Your task to perform on an android device: Show the shopping cart on bestbuy.com. Add usb-b to the cart on bestbuy.com, then select checkout. Image 0: 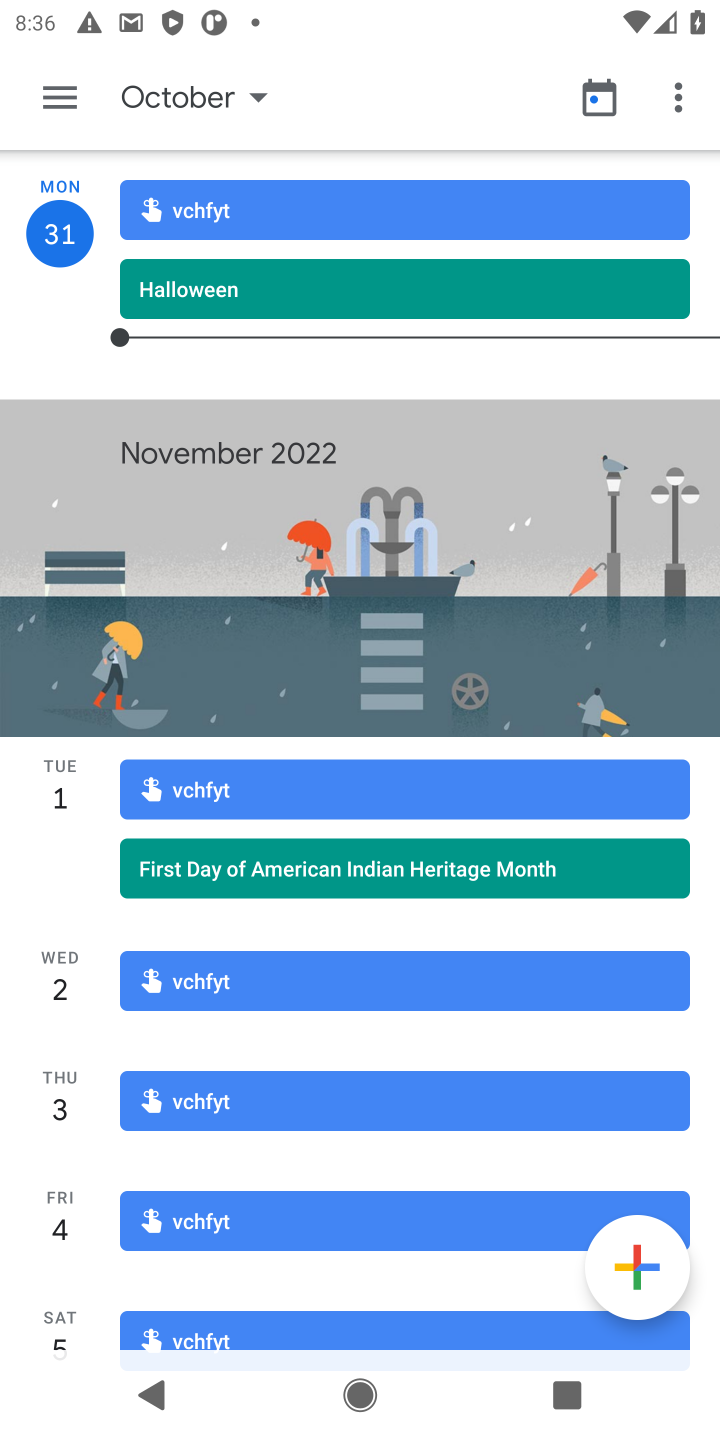
Step 0: press home button
Your task to perform on an android device: Show the shopping cart on bestbuy.com. Add usb-b to the cart on bestbuy.com, then select checkout. Image 1: 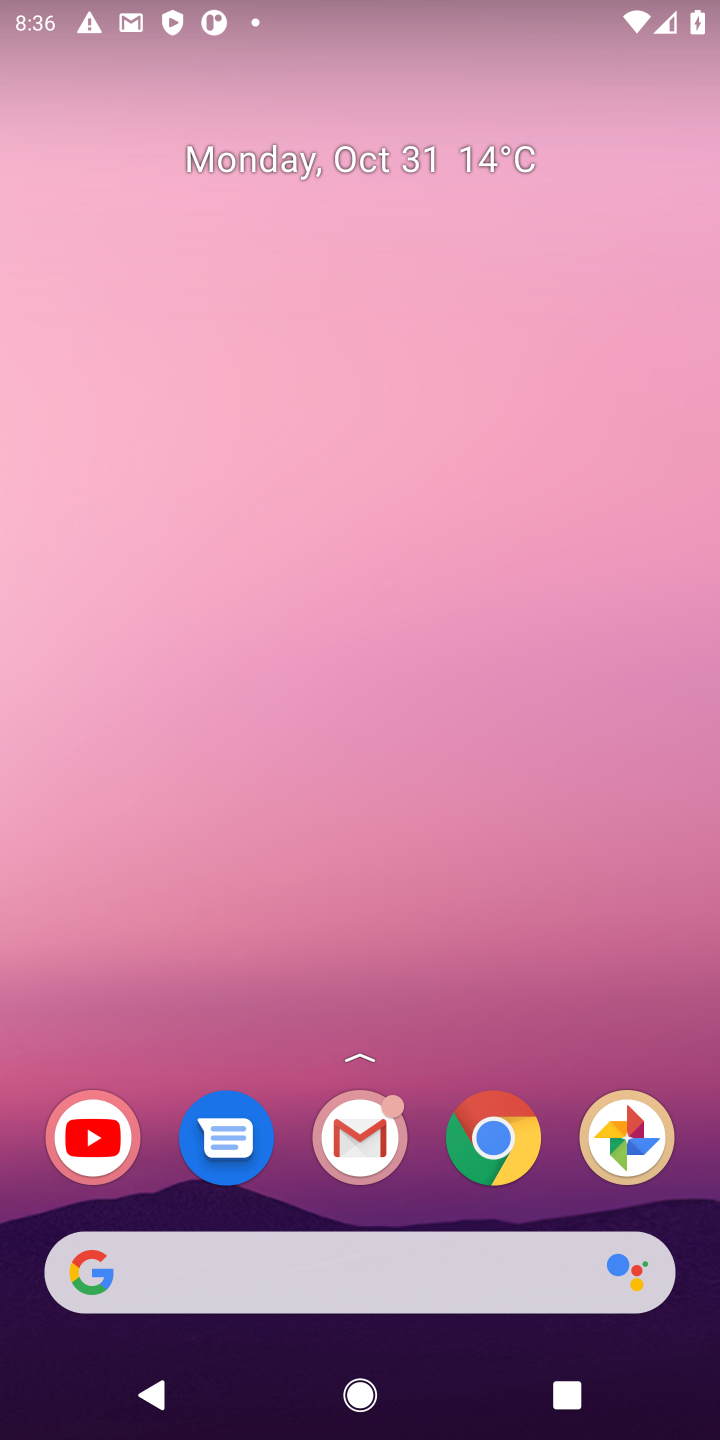
Step 1: click (491, 1120)
Your task to perform on an android device: Show the shopping cart on bestbuy.com. Add usb-b to the cart on bestbuy.com, then select checkout. Image 2: 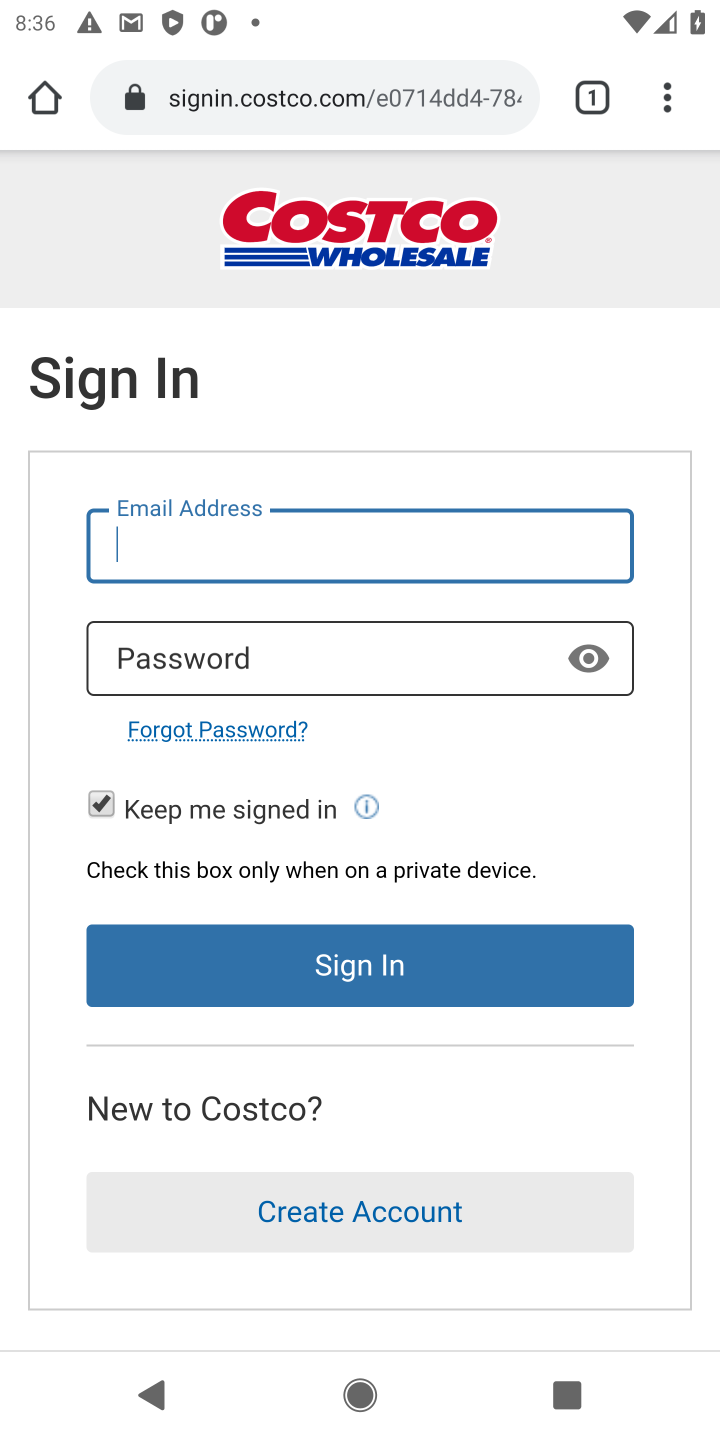
Step 2: click (321, 97)
Your task to perform on an android device: Show the shopping cart on bestbuy.com. Add usb-b to the cart on bestbuy.com, then select checkout. Image 3: 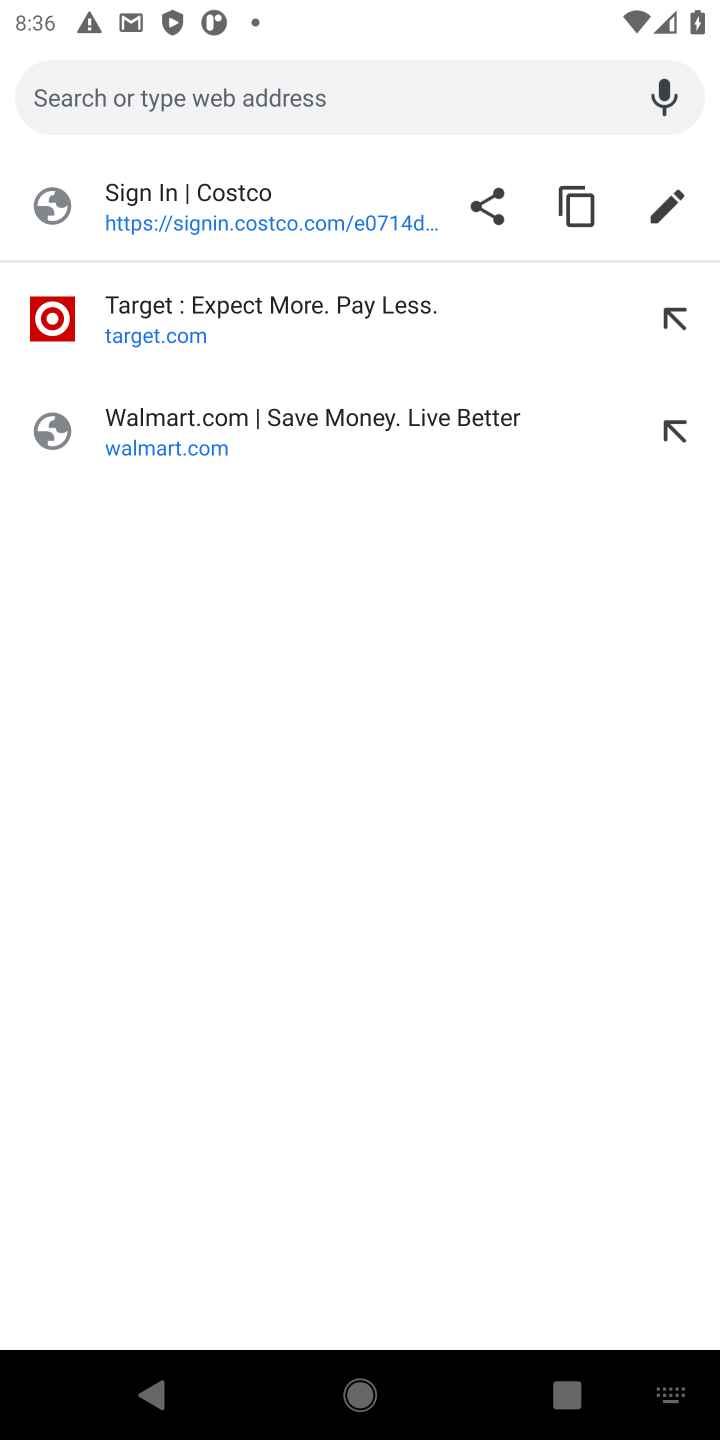
Step 3: type "best buy.com"
Your task to perform on an android device: Show the shopping cart on bestbuy.com. Add usb-b to the cart on bestbuy.com, then select checkout. Image 4: 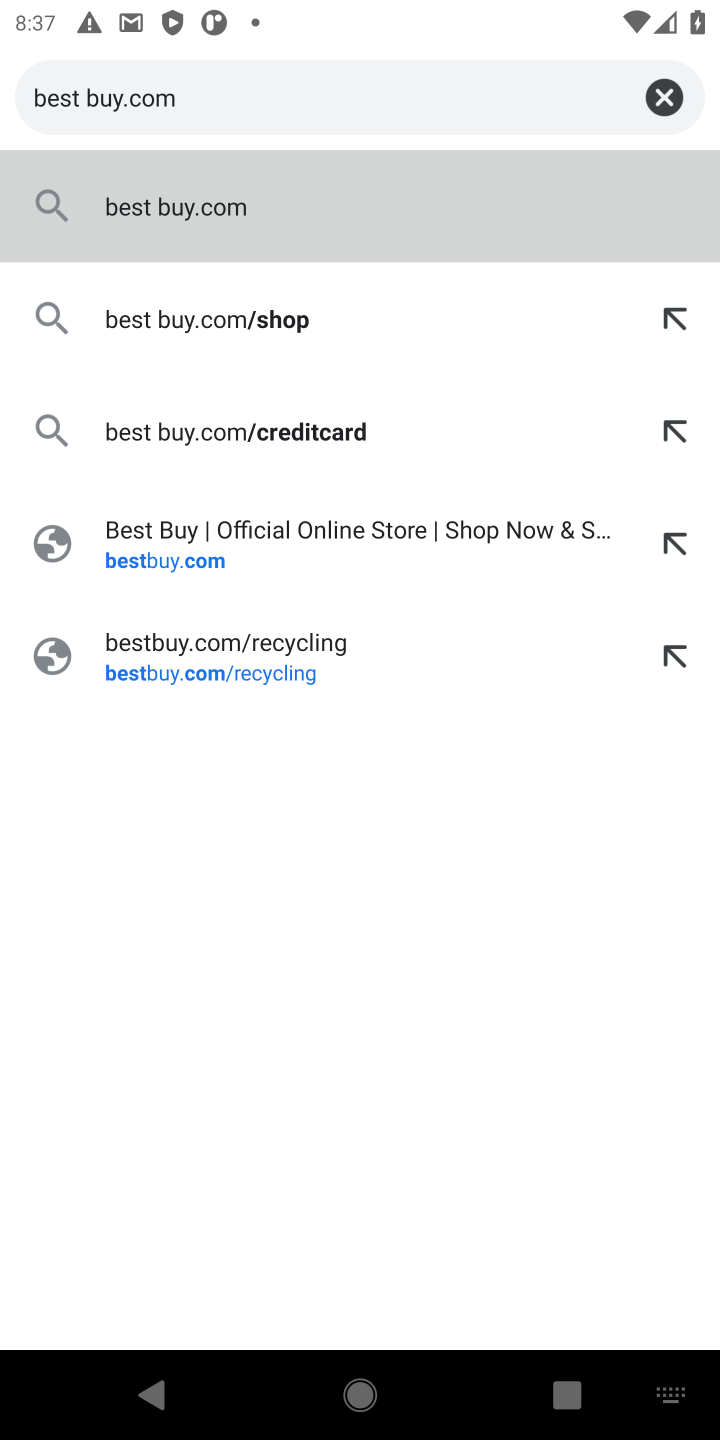
Step 4: click (155, 520)
Your task to perform on an android device: Show the shopping cart on bestbuy.com. Add usb-b to the cart on bestbuy.com, then select checkout. Image 5: 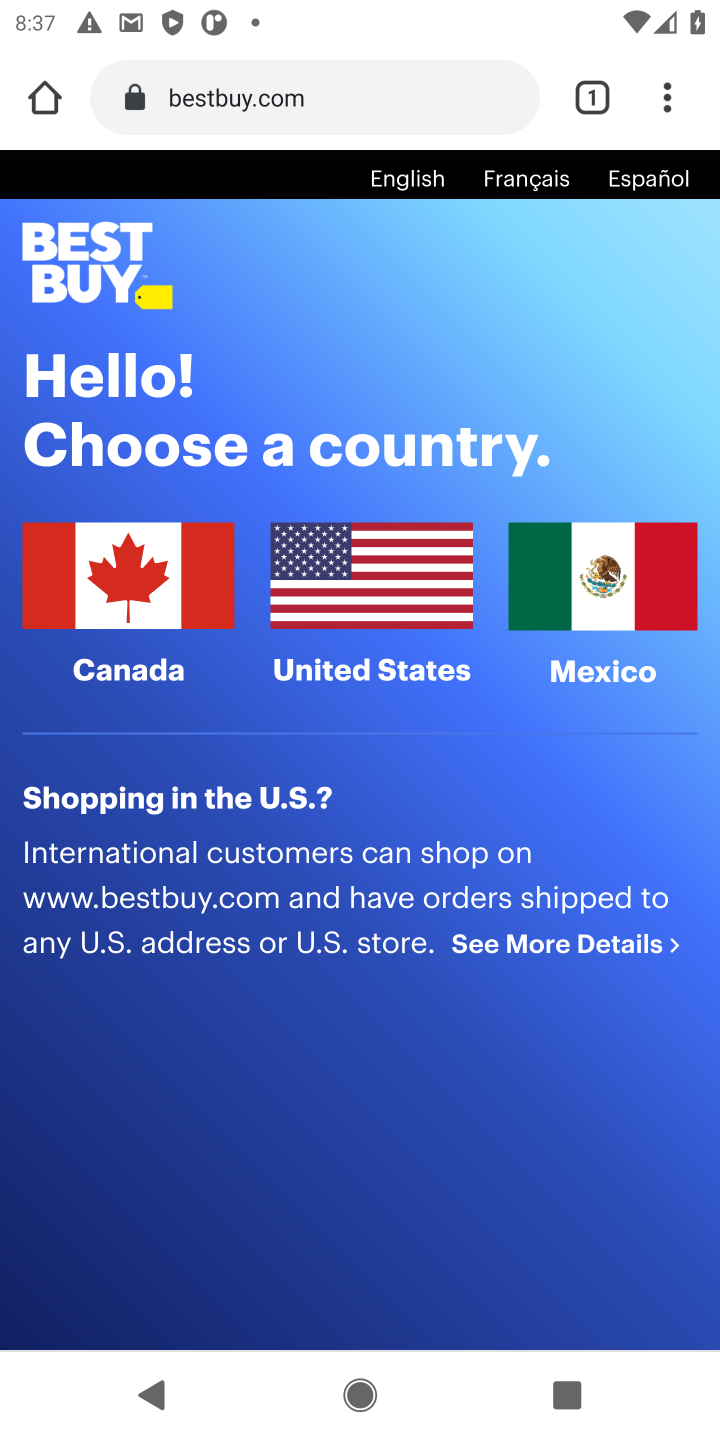
Step 5: click (72, 575)
Your task to perform on an android device: Show the shopping cart on bestbuy.com. Add usb-b to the cart on bestbuy.com, then select checkout. Image 6: 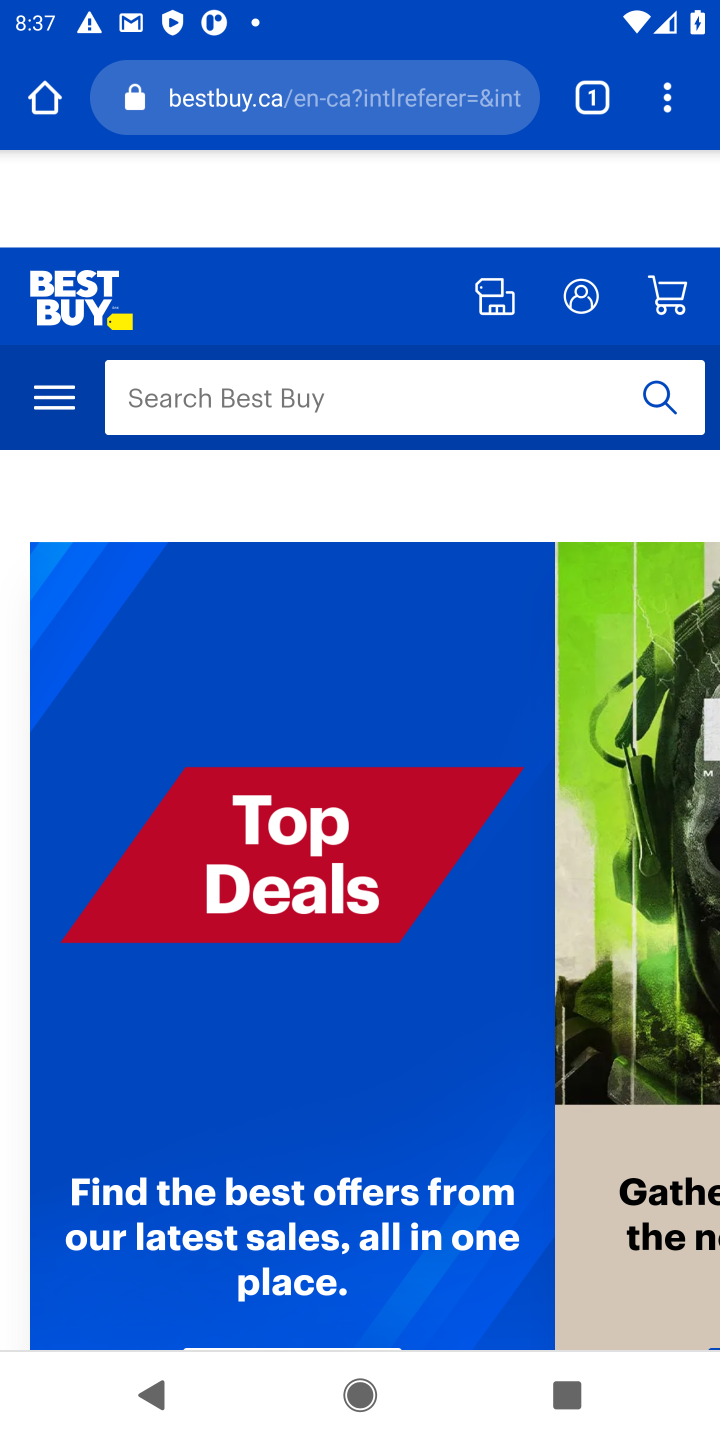
Step 6: click (187, 390)
Your task to perform on an android device: Show the shopping cart on bestbuy.com. Add usb-b to the cart on bestbuy.com, then select checkout. Image 7: 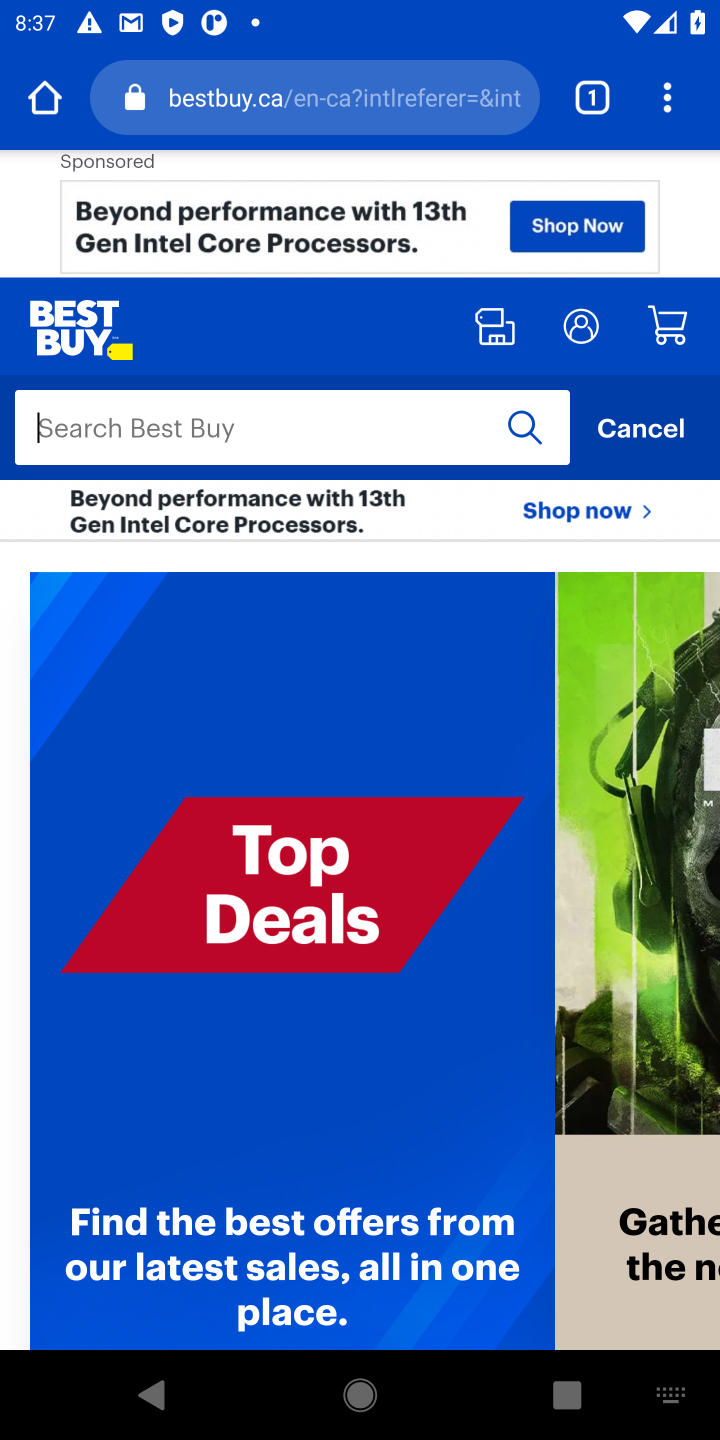
Step 7: click (668, 339)
Your task to perform on an android device: Show the shopping cart on bestbuy.com. Add usb-b to the cart on bestbuy.com, then select checkout. Image 8: 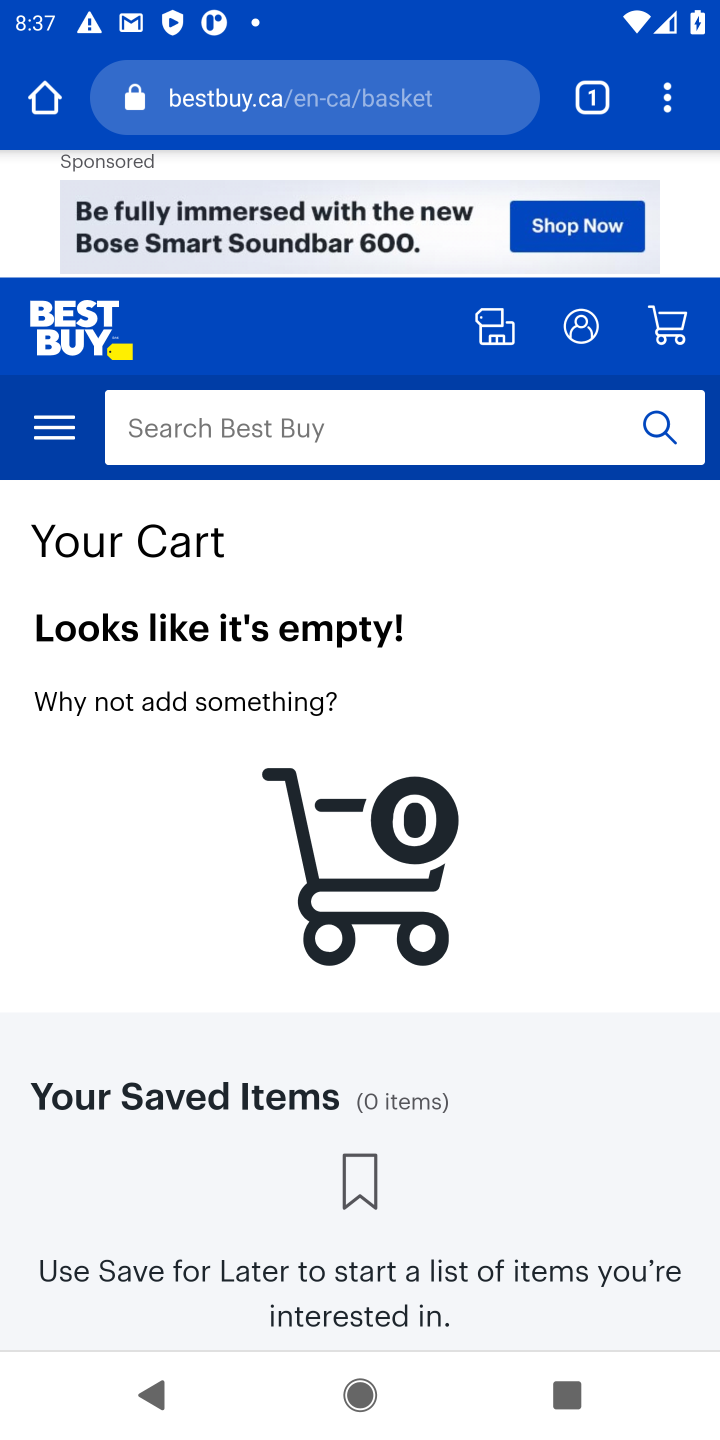
Step 8: press back button
Your task to perform on an android device: Show the shopping cart on bestbuy.com. Add usb-b to the cart on bestbuy.com, then select checkout. Image 9: 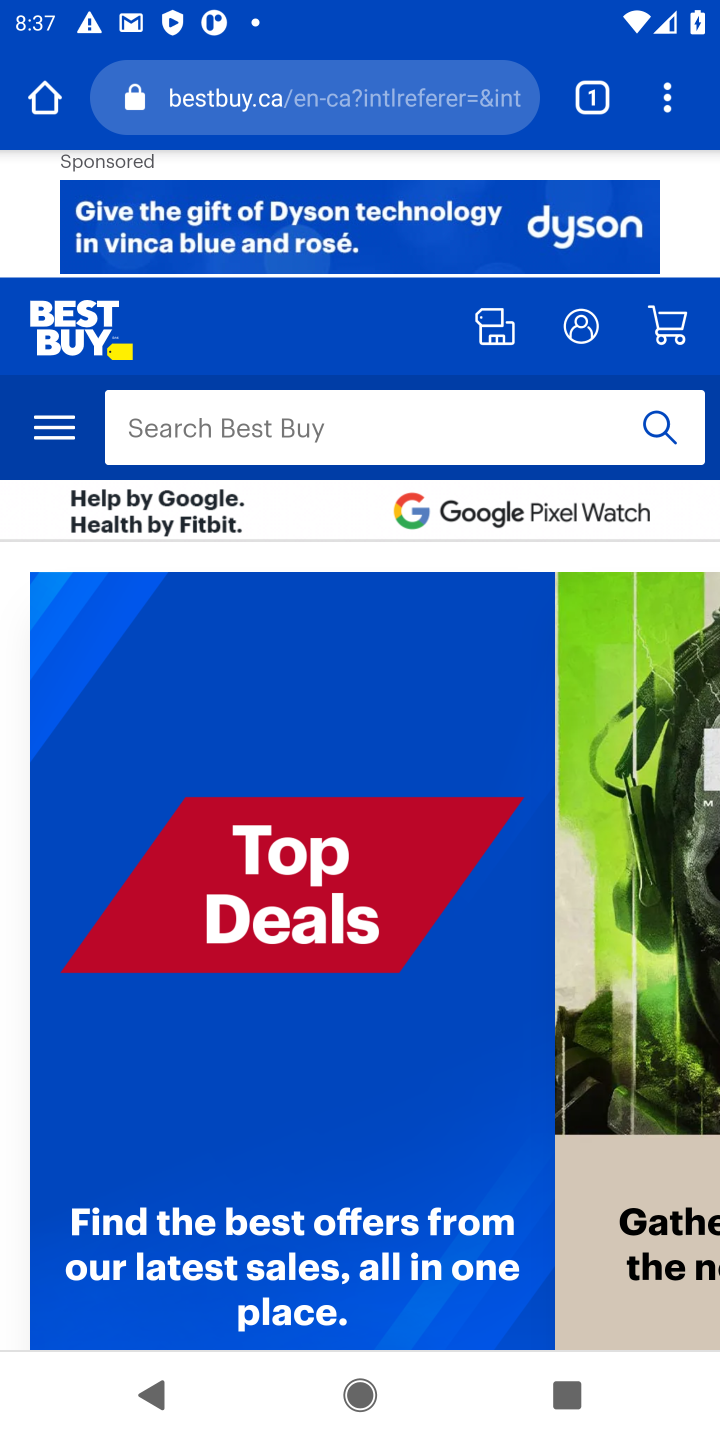
Step 9: click (181, 433)
Your task to perform on an android device: Show the shopping cart on bestbuy.com. Add usb-b to the cart on bestbuy.com, then select checkout. Image 10: 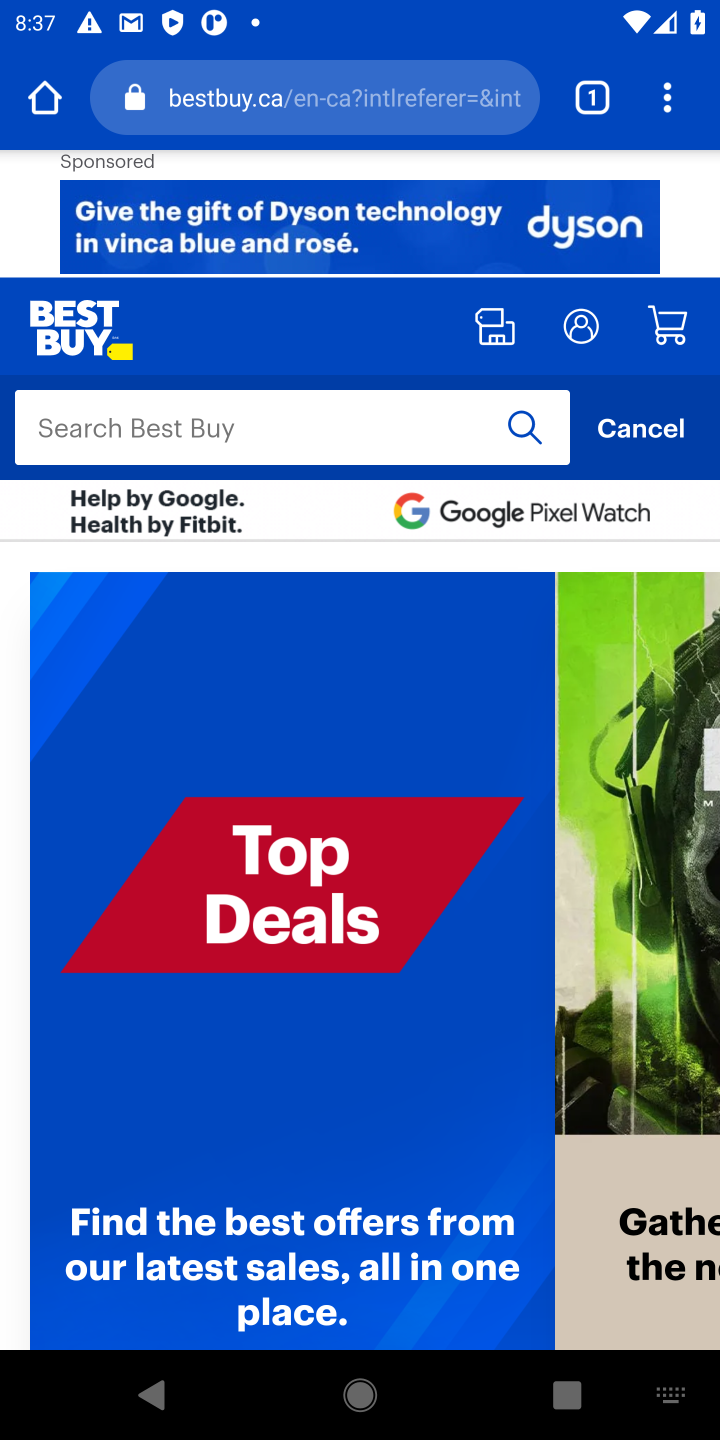
Step 10: type "usb b "
Your task to perform on an android device: Show the shopping cart on bestbuy.com. Add usb-b to the cart on bestbuy.com, then select checkout. Image 11: 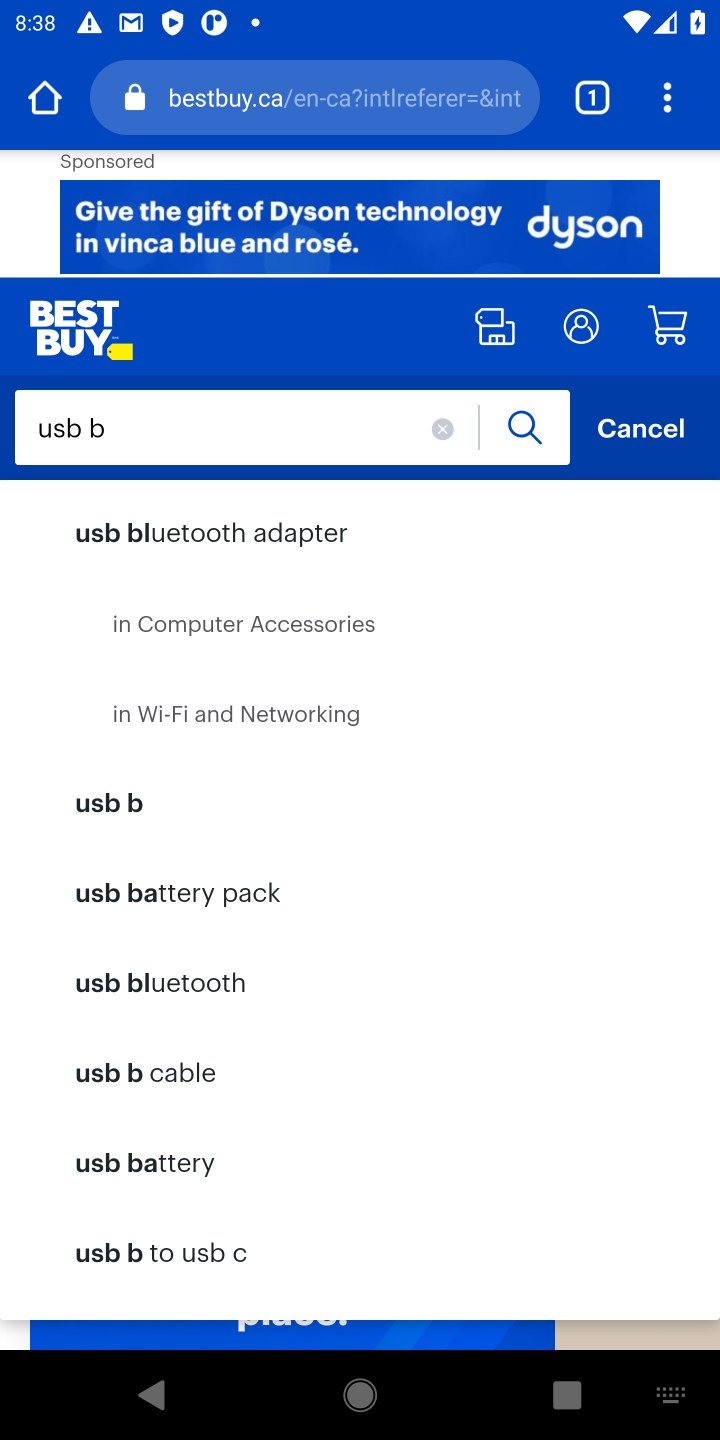
Step 11: click (79, 805)
Your task to perform on an android device: Show the shopping cart on bestbuy.com. Add usb-b to the cart on bestbuy.com, then select checkout. Image 12: 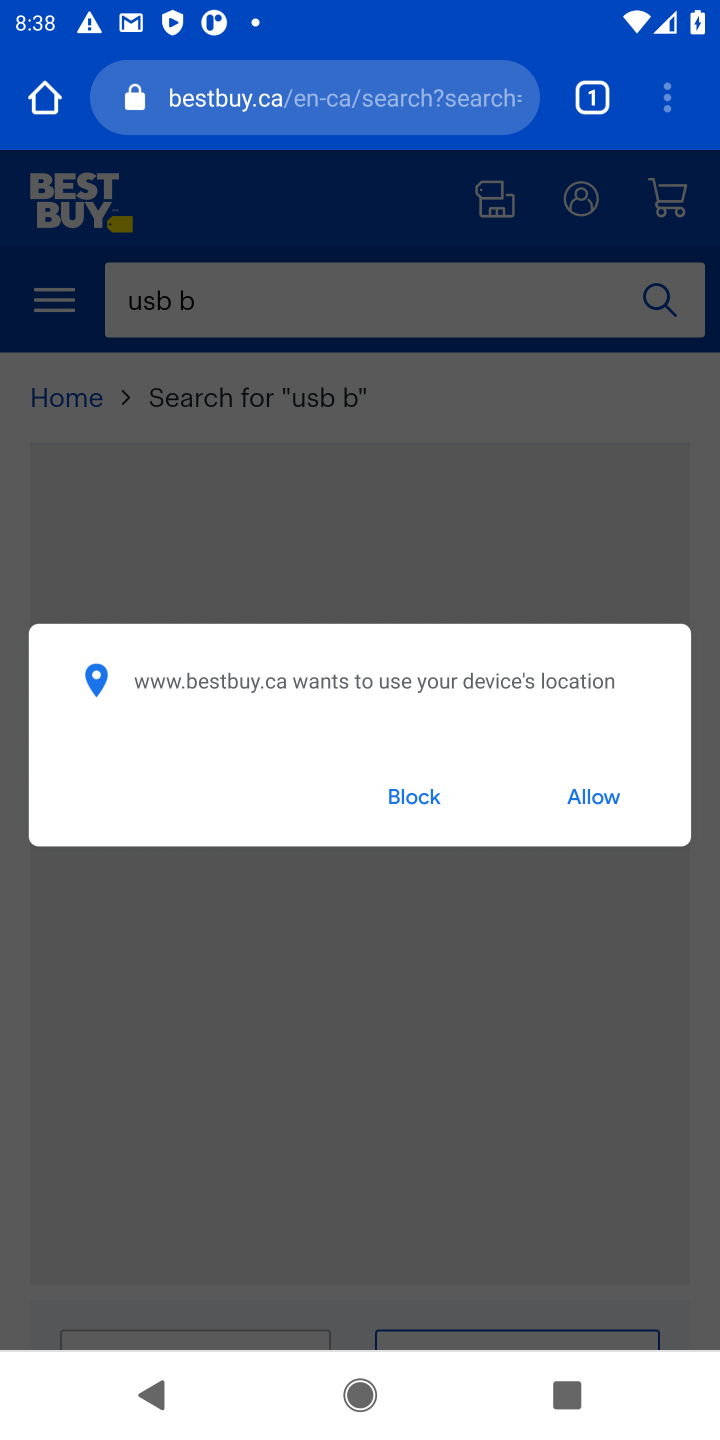
Step 12: click (420, 792)
Your task to perform on an android device: Show the shopping cart on bestbuy.com. Add usb-b to the cart on bestbuy.com, then select checkout. Image 13: 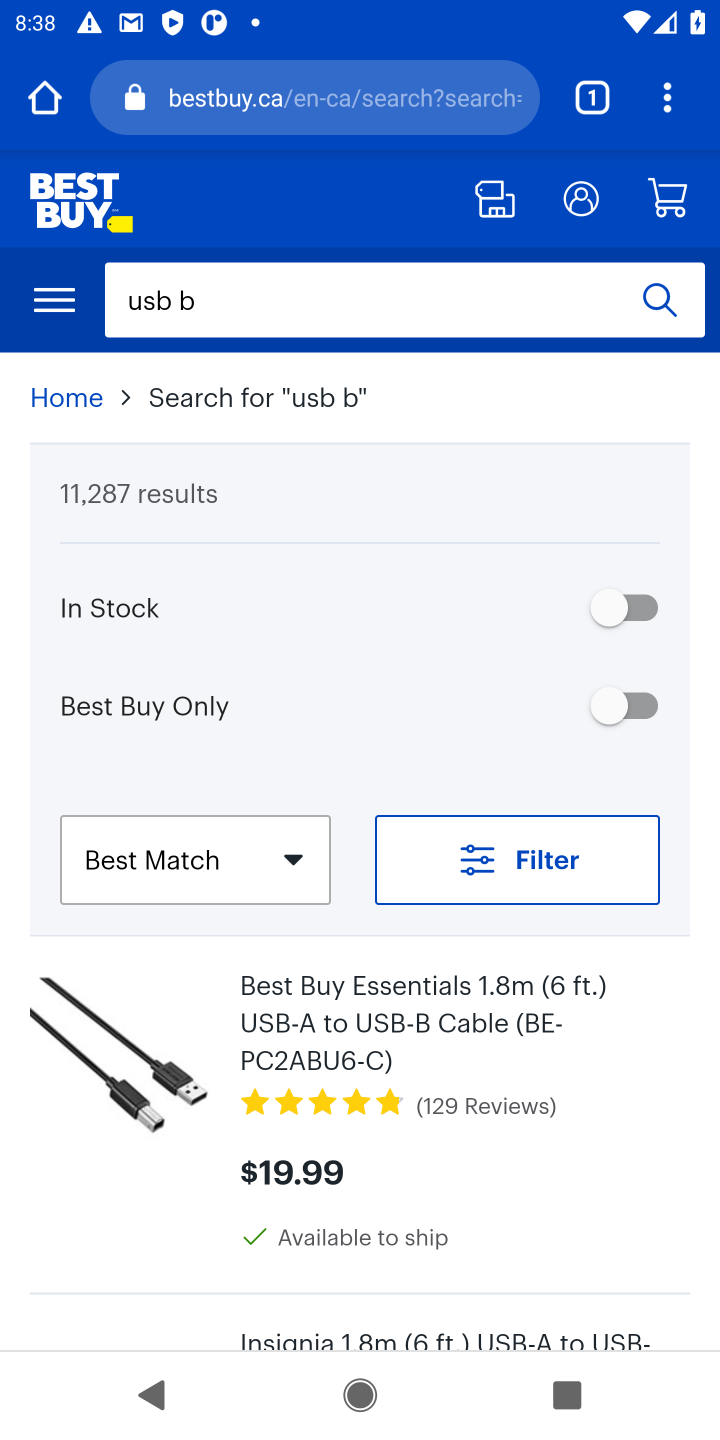
Step 13: drag from (173, 1029) to (203, 430)
Your task to perform on an android device: Show the shopping cart on bestbuy.com. Add usb-b to the cart on bestbuy.com, then select checkout. Image 14: 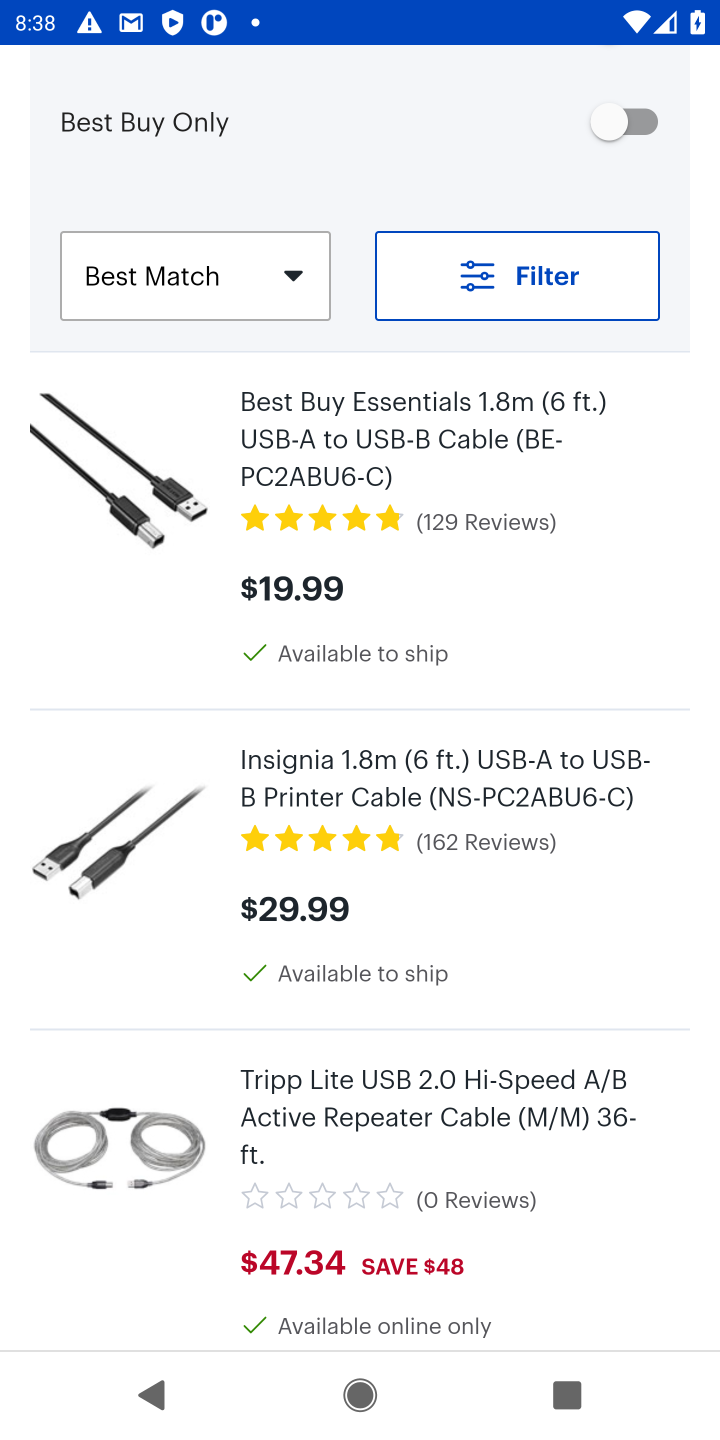
Step 14: click (301, 813)
Your task to perform on an android device: Show the shopping cart on bestbuy.com. Add usb-b to the cart on bestbuy.com, then select checkout. Image 15: 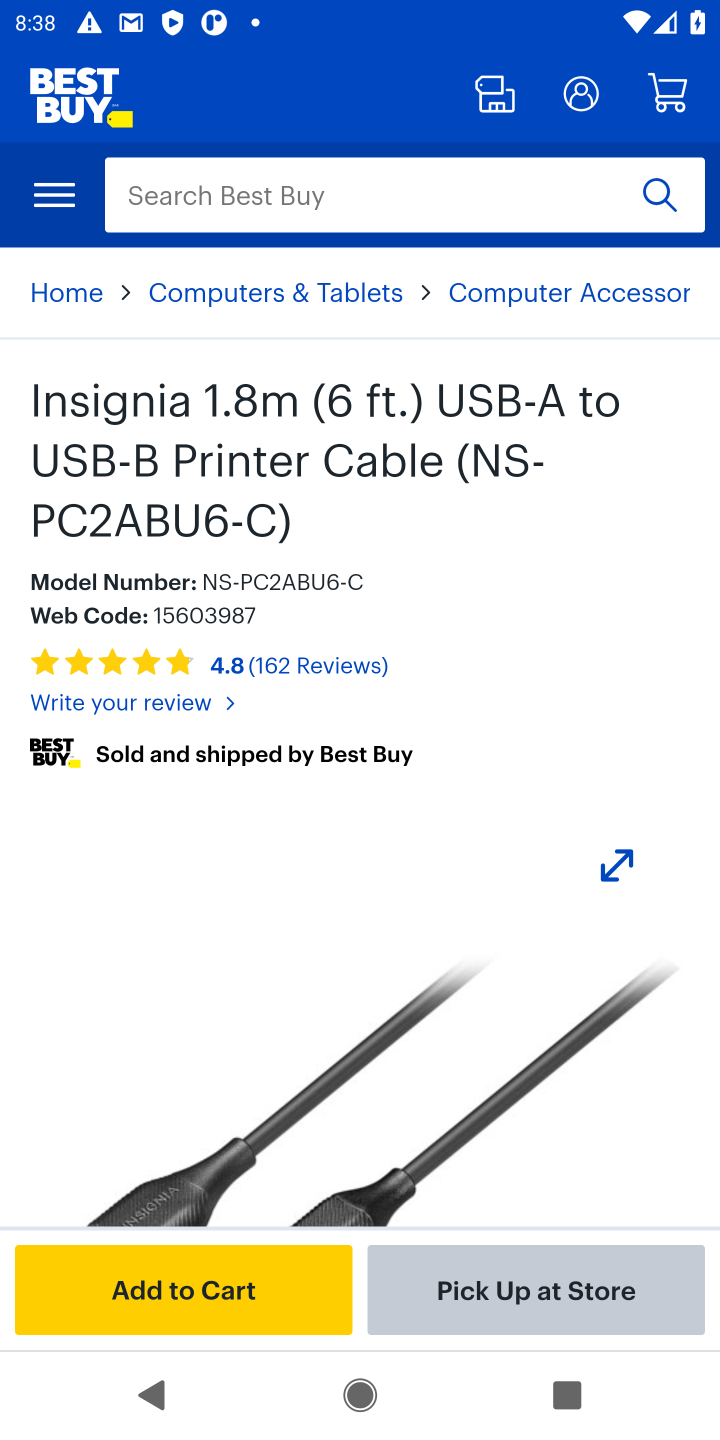
Step 15: drag from (307, 916) to (336, 732)
Your task to perform on an android device: Show the shopping cart on bestbuy.com. Add usb-b to the cart on bestbuy.com, then select checkout. Image 16: 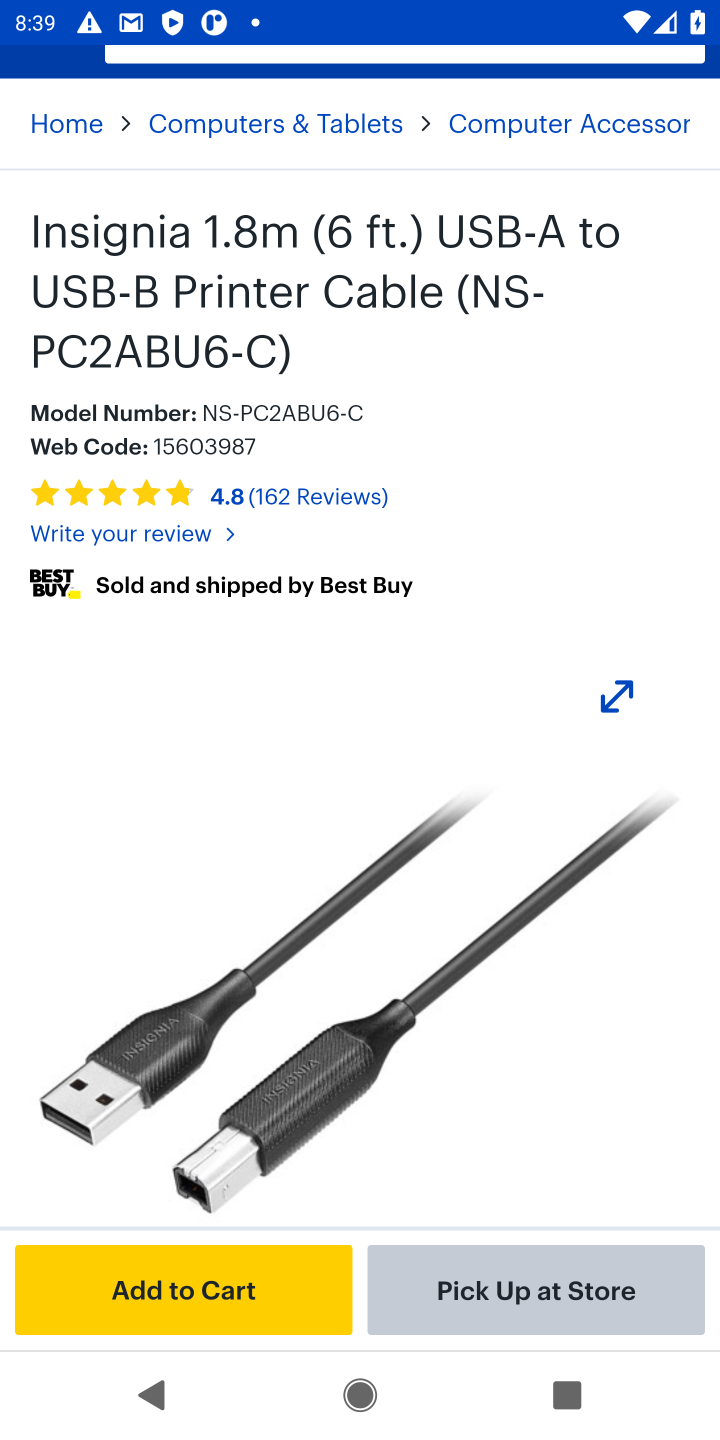
Step 16: click (201, 1323)
Your task to perform on an android device: Show the shopping cart on bestbuy.com. Add usb-b to the cart on bestbuy.com, then select checkout. Image 17: 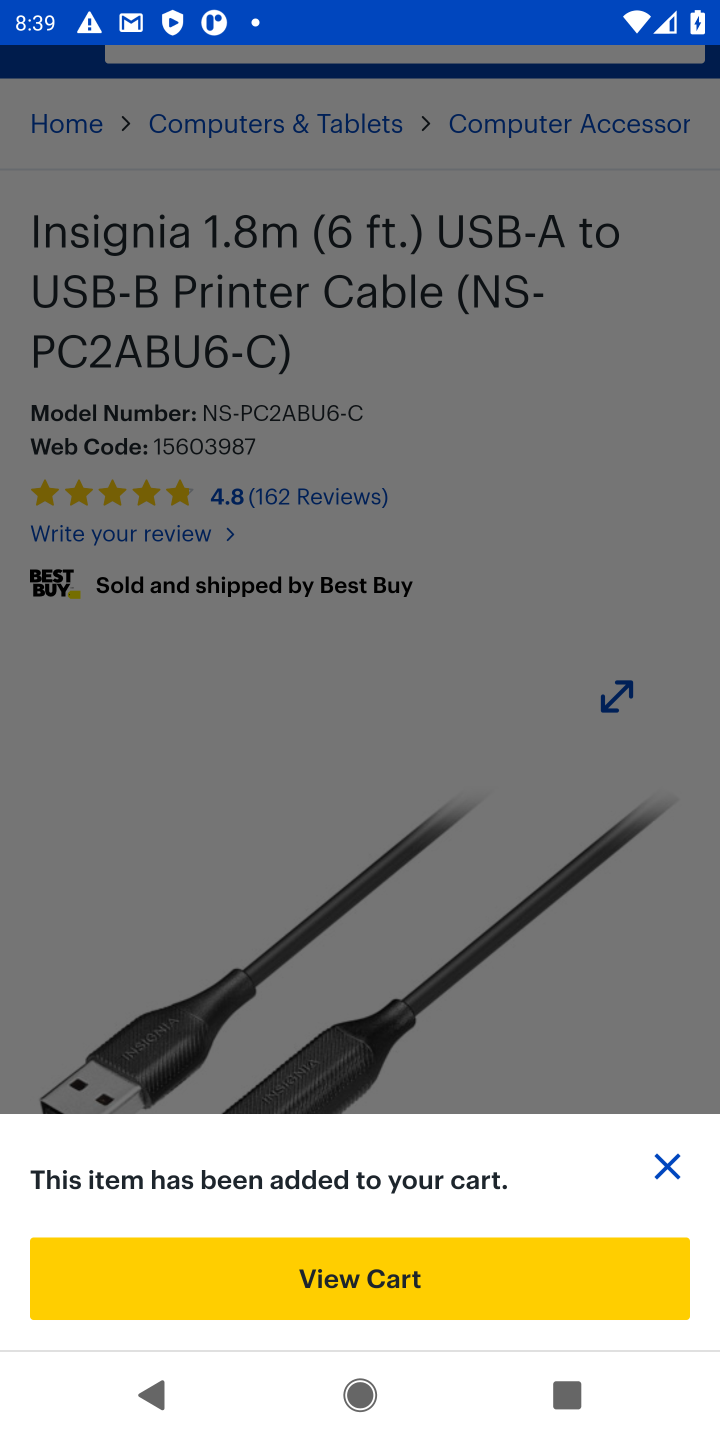
Step 17: click (418, 1296)
Your task to perform on an android device: Show the shopping cart on bestbuy.com. Add usb-b to the cart on bestbuy.com, then select checkout. Image 18: 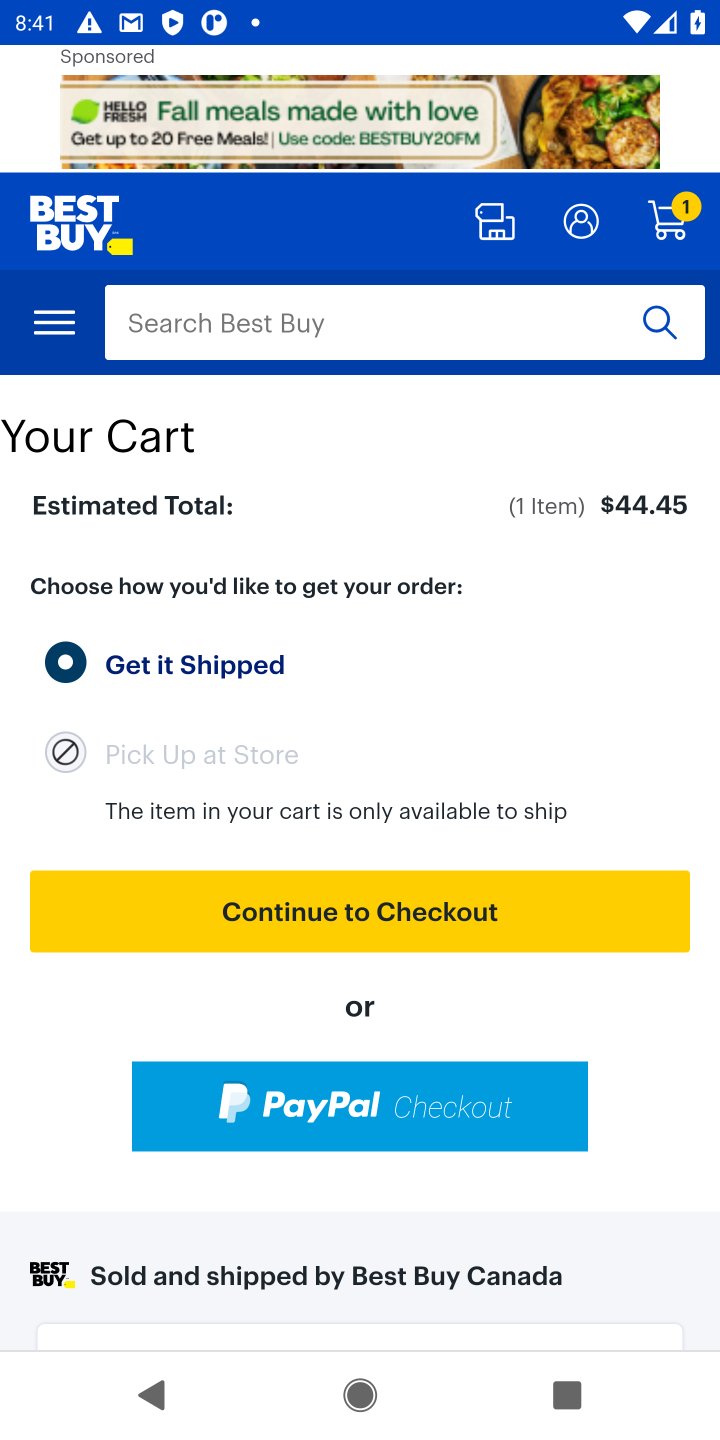
Step 18: click (318, 897)
Your task to perform on an android device: Show the shopping cart on bestbuy.com. Add usb-b to the cart on bestbuy.com, then select checkout. Image 19: 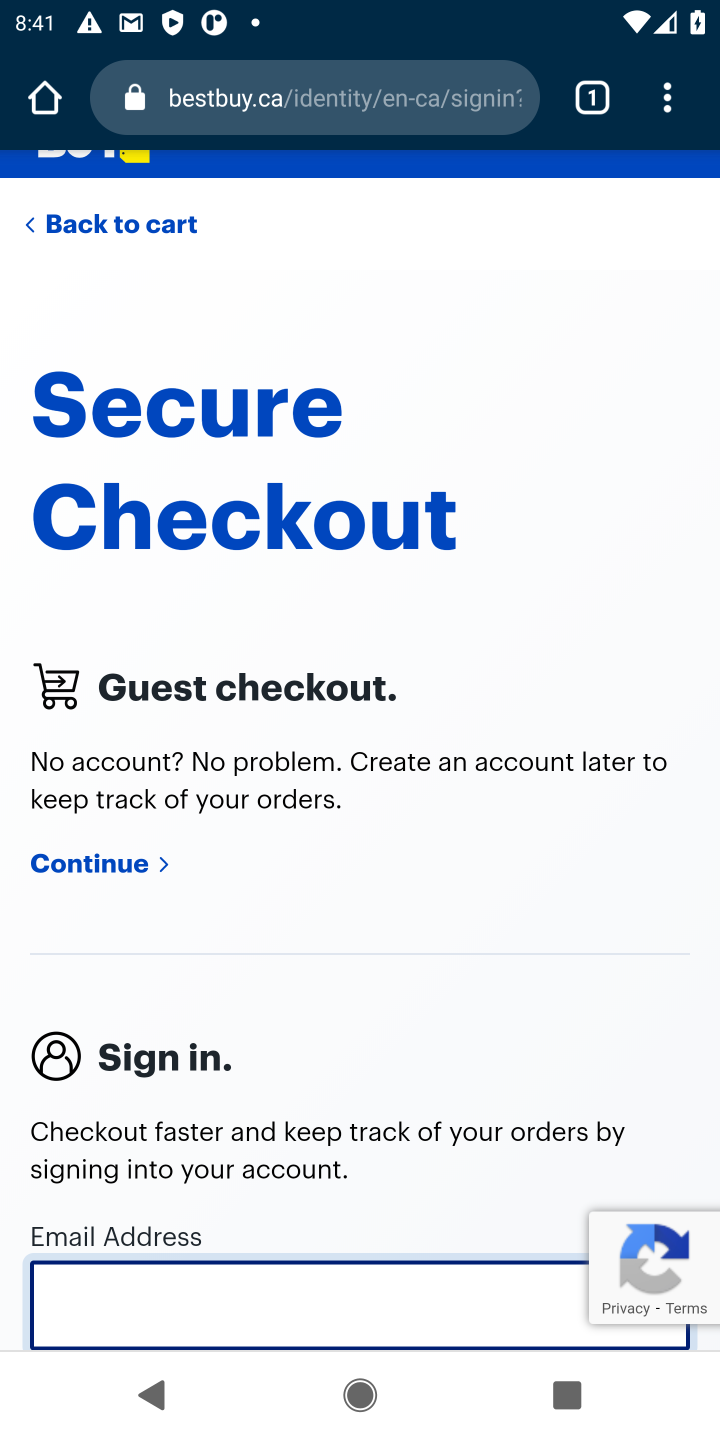
Step 19: task complete